Your task to perform on an android device: Open settings Image 0: 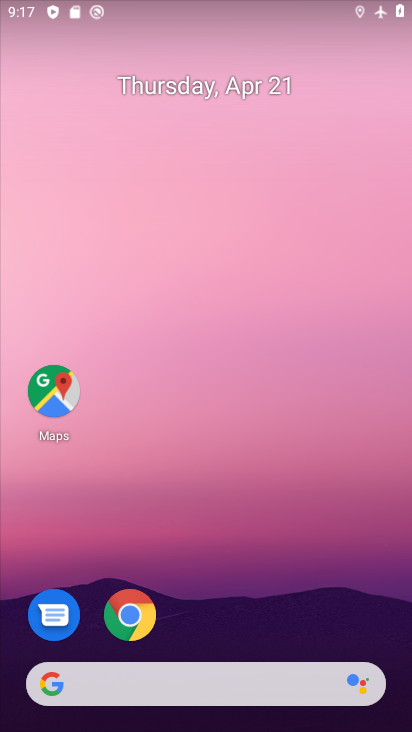
Step 0: drag from (210, 724) to (256, 135)
Your task to perform on an android device: Open settings Image 1: 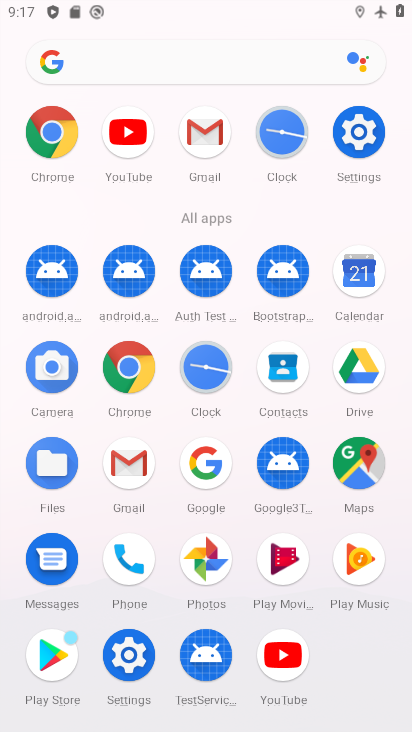
Step 1: click (357, 139)
Your task to perform on an android device: Open settings Image 2: 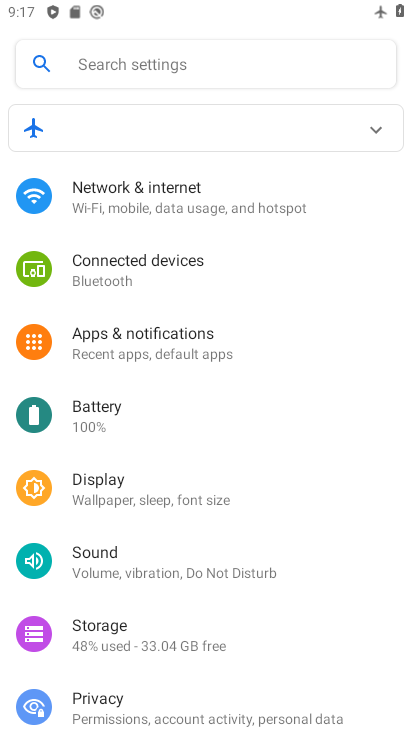
Step 2: task complete